Your task to perform on an android device: Open sound settings Image 0: 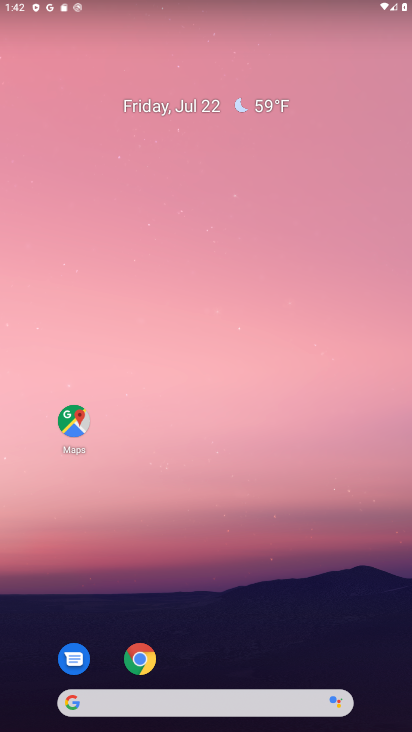
Step 0: drag from (325, 655) to (179, 144)
Your task to perform on an android device: Open sound settings Image 1: 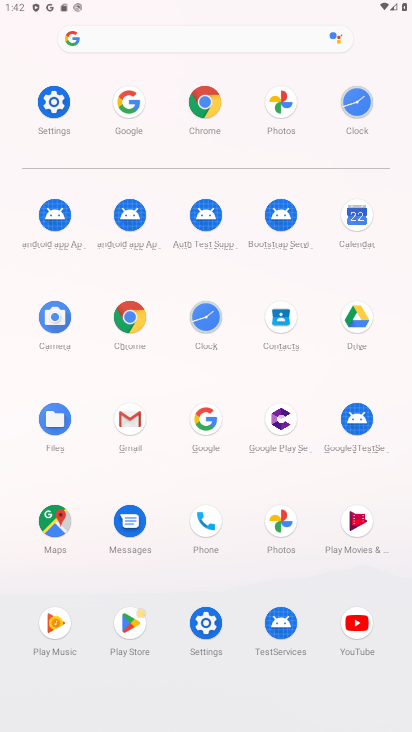
Step 1: click (48, 102)
Your task to perform on an android device: Open sound settings Image 2: 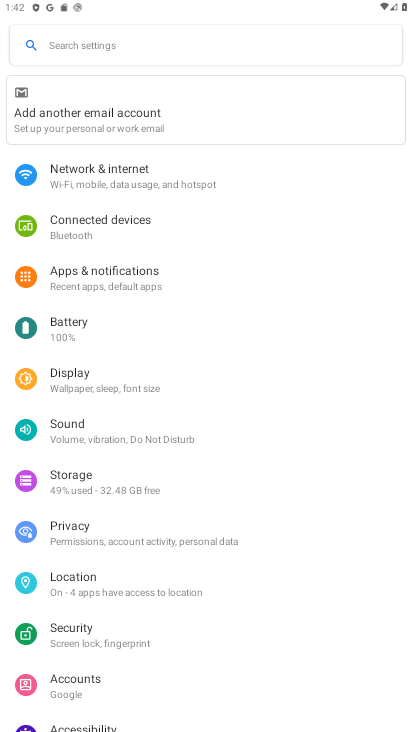
Step 2: click (112, 429)
Your task to perform on an android device: Open sound settings Image 3: 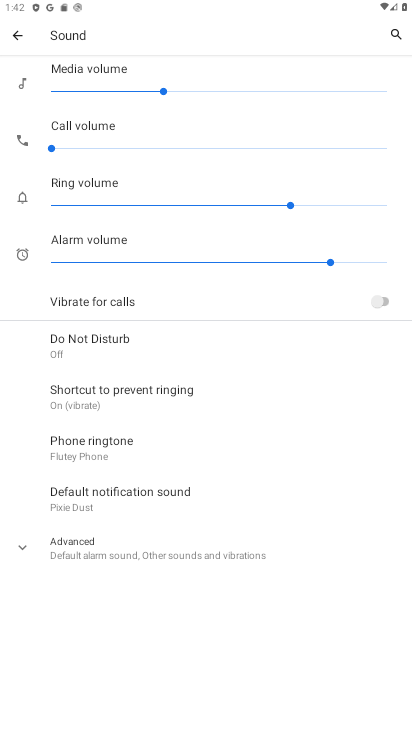
Step 3: task complete